Your task to perform on an android device: Open the calendar and show me this week's events Image 0: 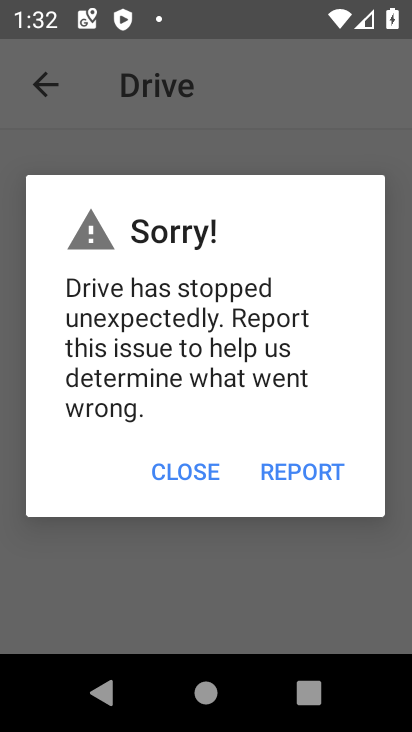
Step 0: press home button
Your task to perform on an android device: Open the calendar and show me this week's events Image 1: 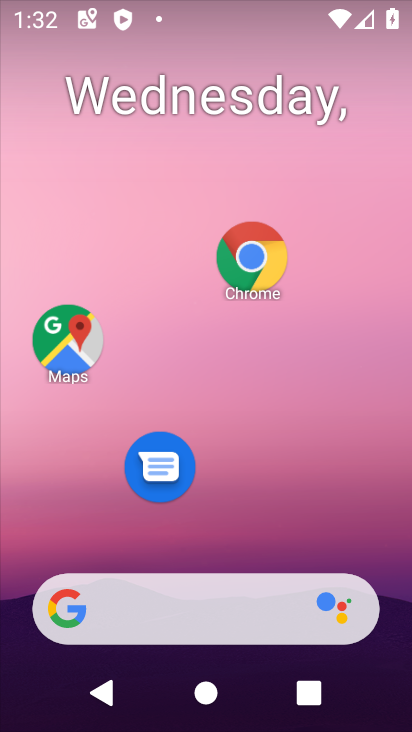
Step 1: click (319, 20)
Your task to perform on an android device: Open the calendar and show me this week's events Image 2: 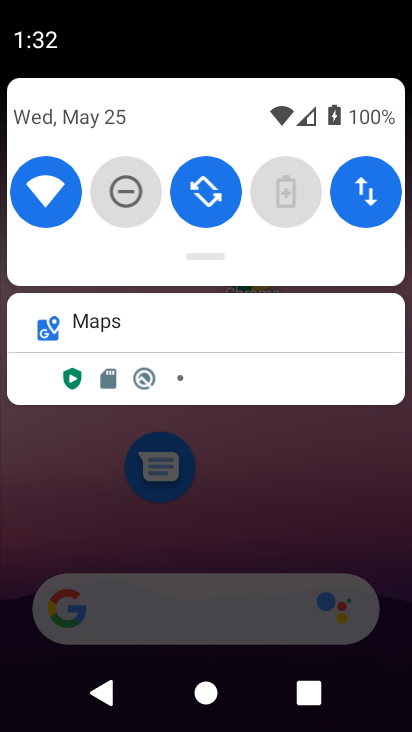
Step 2: drag from (338, 513) to (352, 43)
Your task to perform on an android device: Open the calendar and show me this week's events Image 3: 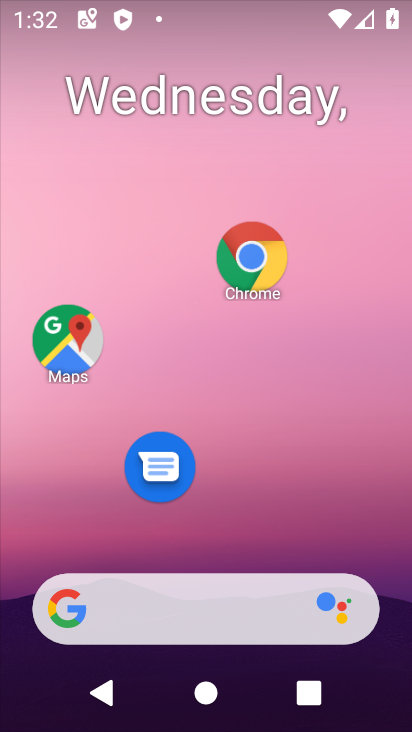
Step 3: drag from (328, 464) to (343, 2)
Your task to perform on an android device: Open the calendar and show me this week's events Image 4: 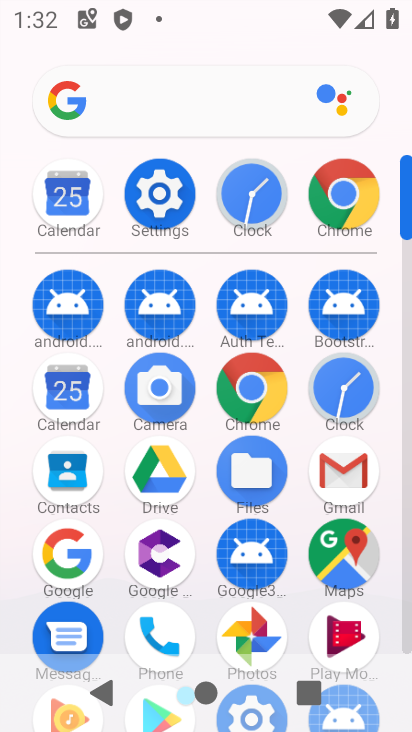
Step 4: click (90, 395)
Your task to perform on an android device: Open the calendar and show me this week's events Image 5: 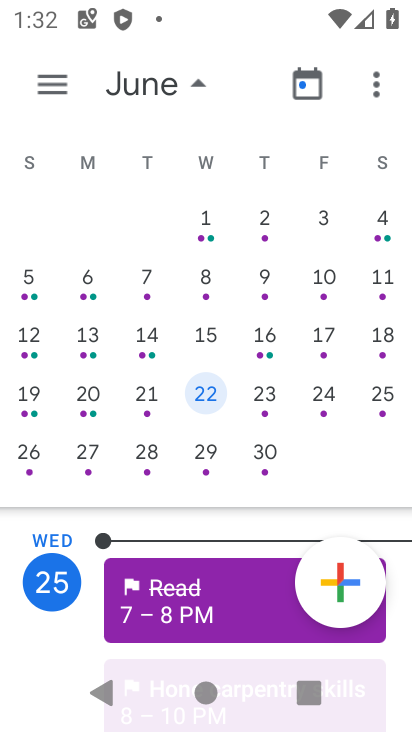
Step 5: click (212, 323)
Your task to perform on an android device: Open the calendar and show me this week's events Image 6: 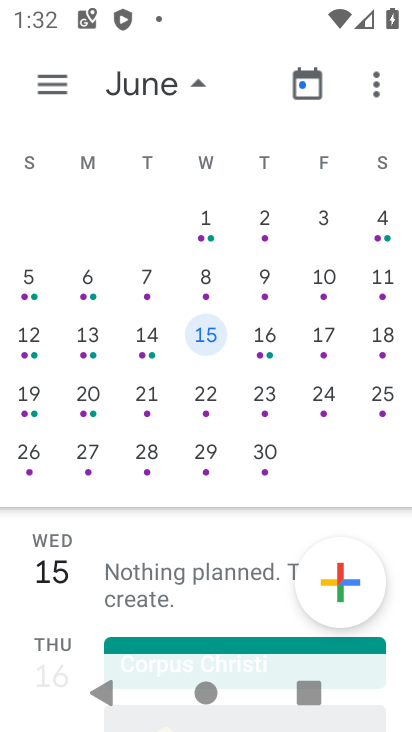
Step 6: drag from (51, 279) to (375, 302)
Your task to perform on an android device: Open the calendar and show me this week's events Image 7: 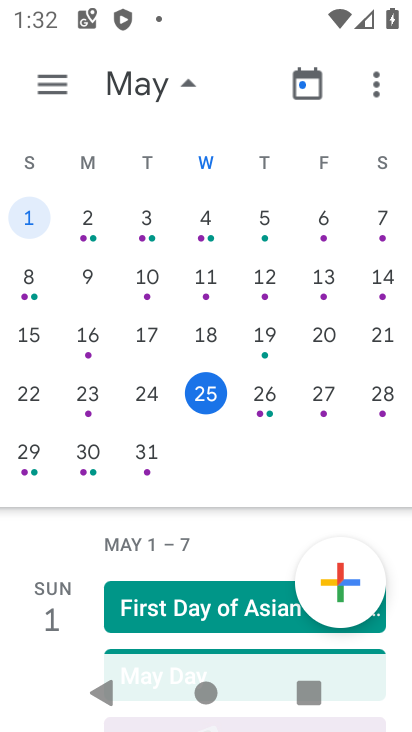
Step 7: click (332, 402)
Your task to perform on an android device: Open the calendar and show me this week's events Image 8: 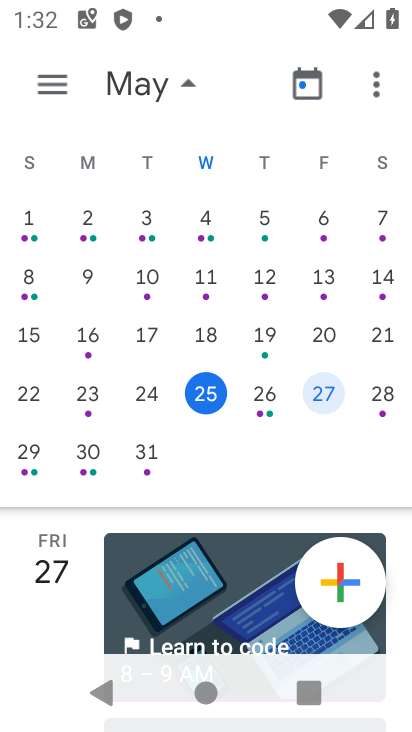
Step 8: click (166, 92)
Your task to perform on an android device: Open the calendar and show me this week's events Image 9: 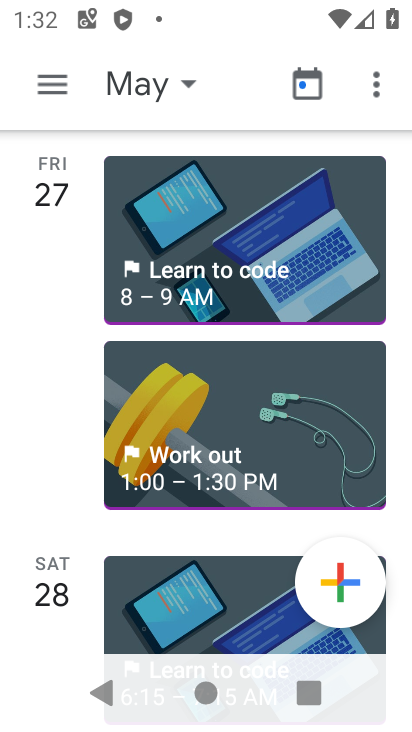
Step 9: click (197, 72)
Your task to perform on an android device: Open the calendar and show me this week's events Image 10: 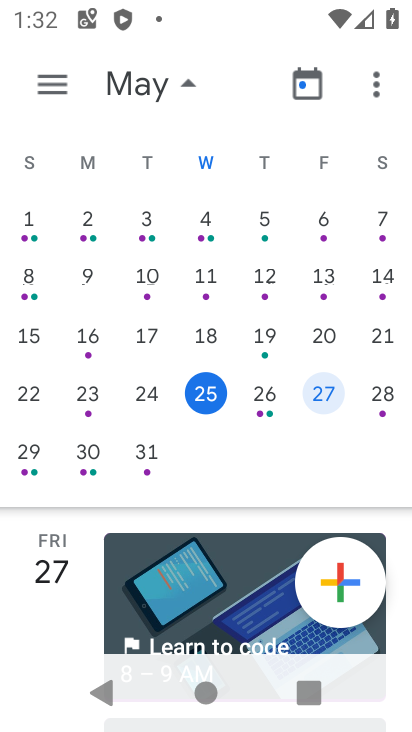
Step 10: click (194, 86)
Your task to perform on an android device: Open the calendar and show me this week's events Image 11: 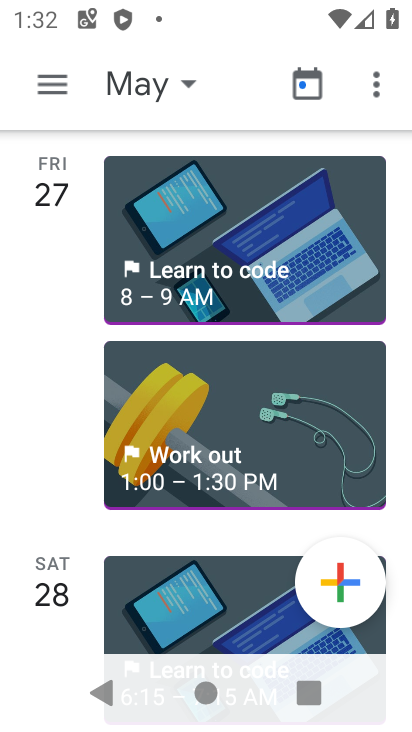
Step 11: task complete